Your task to perform on an android device: Open the web browser Image 0: 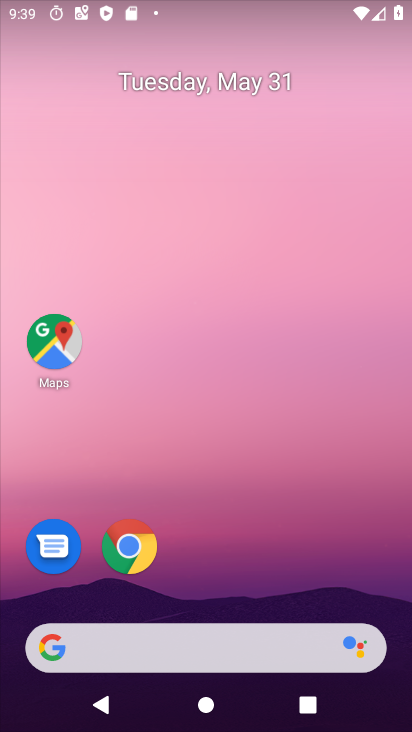
Step 0: click (143, 544)
Your task to perform on an android device: Open the web browser Image 1: 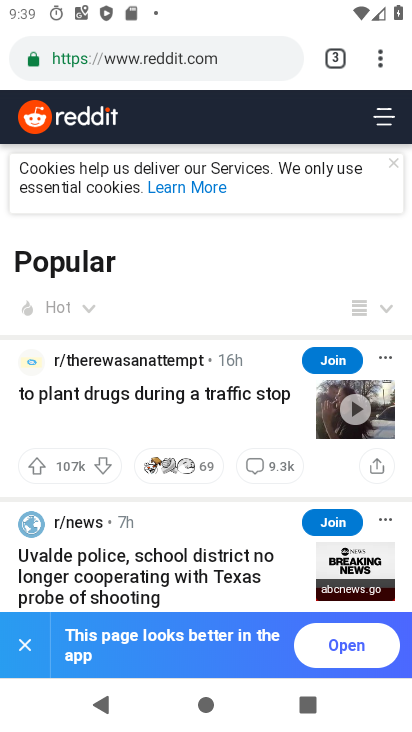
Step 1: task complete